Your task to perform on an android device: Open the web browser Image 0: 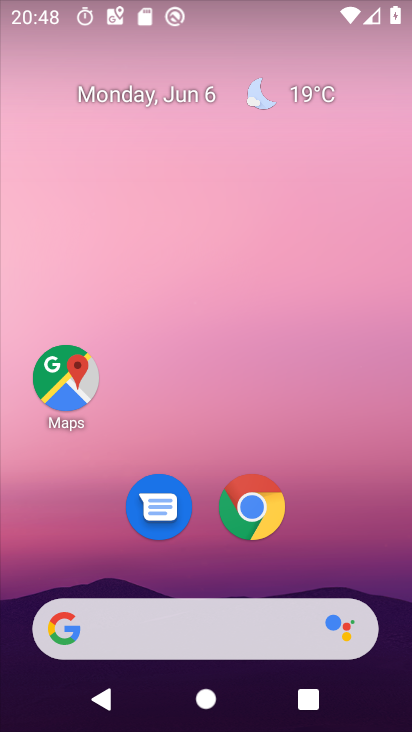
Step 0: press home button
Your task to perform on an android device: Open the web browser Image 1: 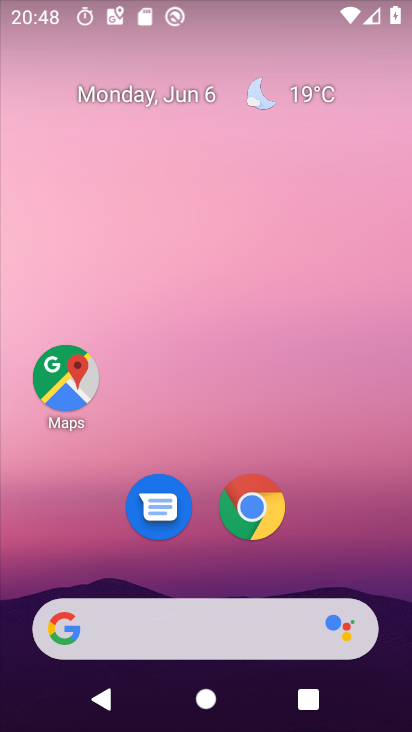
Step 1: click (264, 514)
Your task to perform on an android device: Open the web browser Image 2: 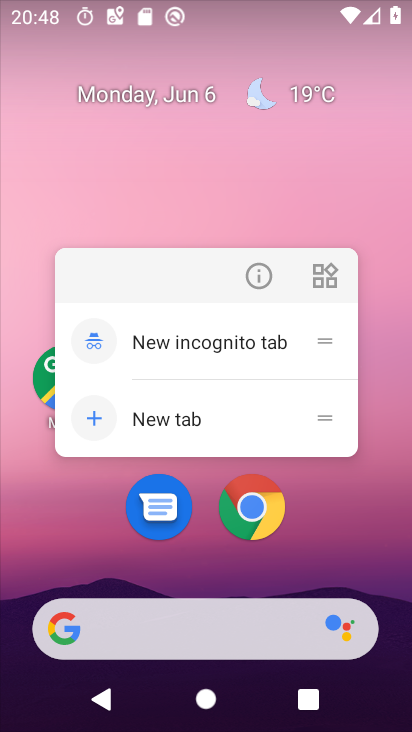
Step 2: click (264, 514)
Your task to perform on an android device: Open the web browser Image 3: 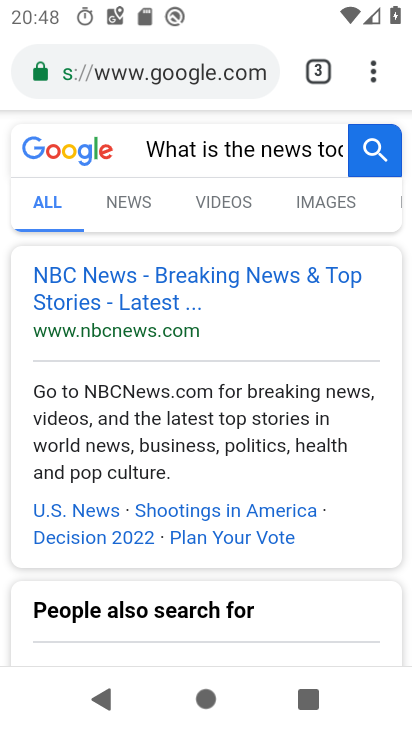
Step 3: click (249, 76)
Your task to perform on an android device: Open the web browser Image 4: 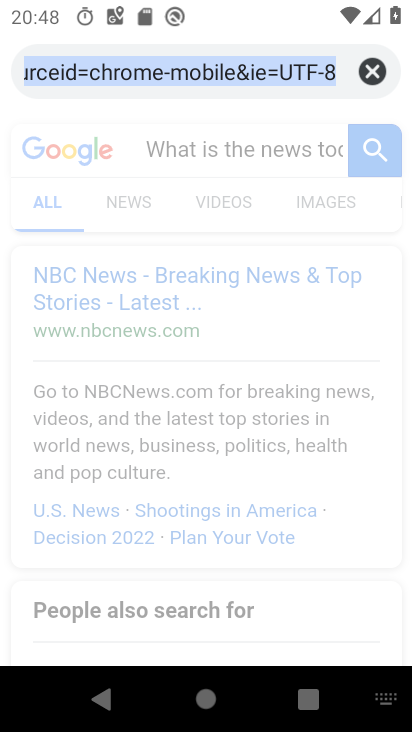
Step 4: type " web browser"
Your task to perform on an android device: Open the web browser Image 5: 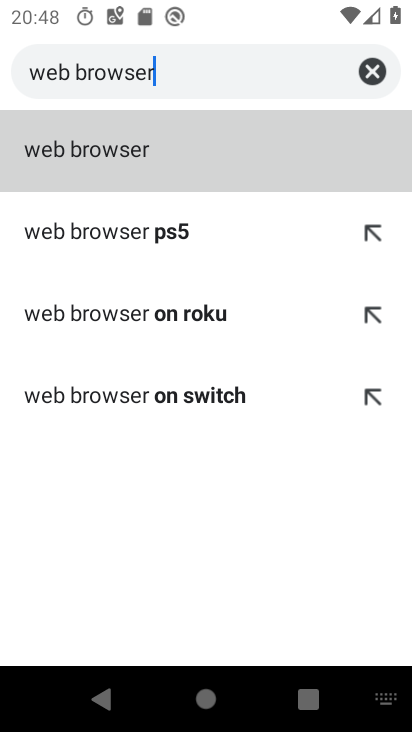
Step 5: click (349, 137)
Your task to perform on an android device: Open the web browser Image 6: 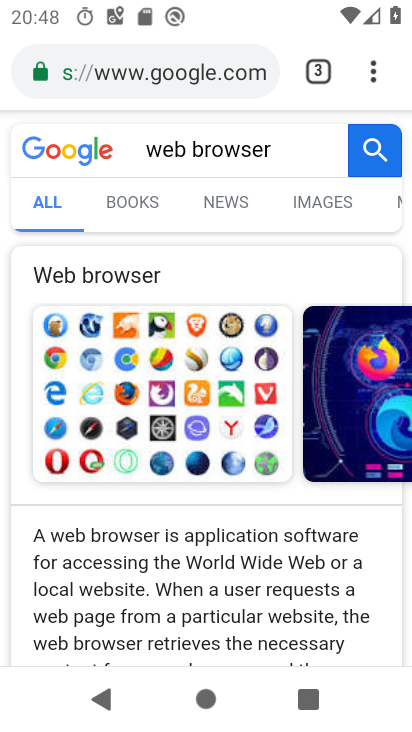
Step 6: task complete